Your task to perform on an android device: Open display settings Image 0: 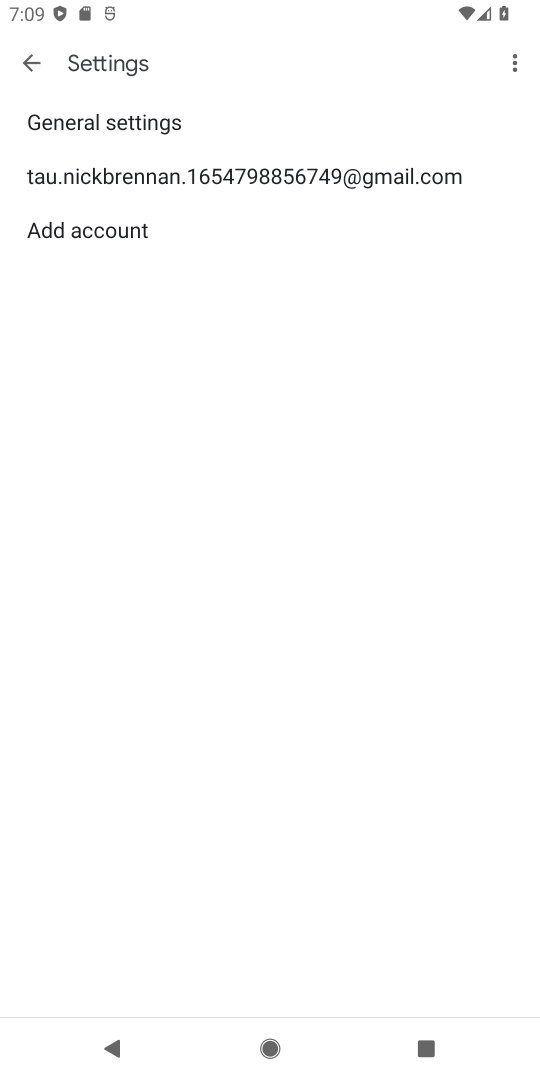
Step 0: press home button
Your task to perform on an android device: Open display settings Image 1: 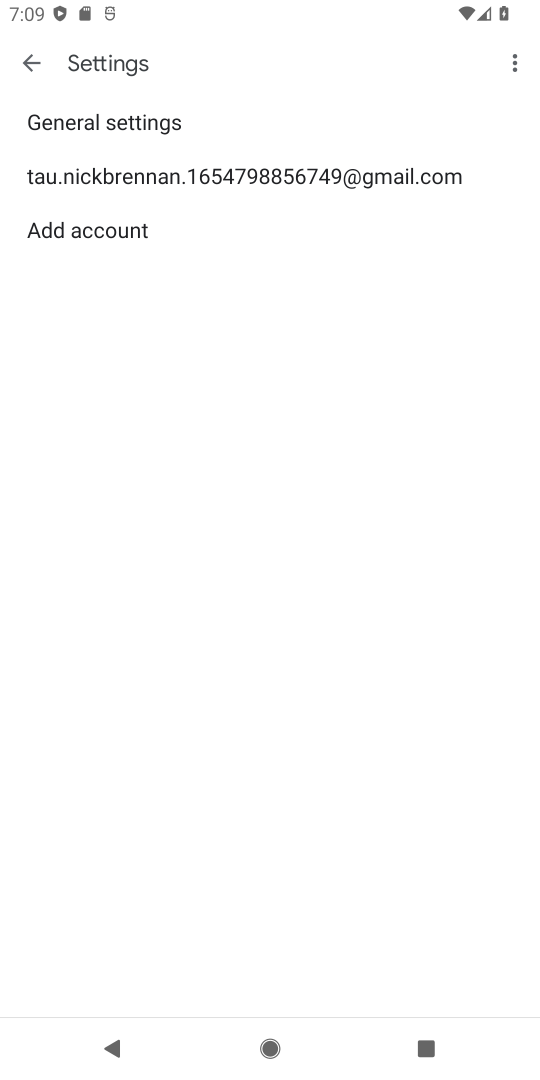
Step 1: press home button
Your task to perform on an android device: Open display settings Image 2: 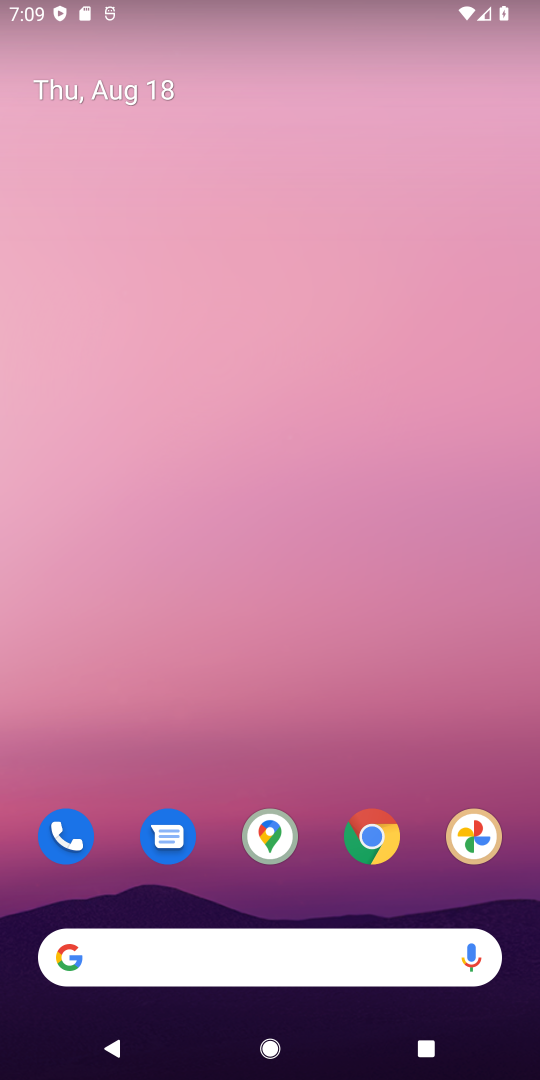
Step 2: drag from (291, 703) to (216, 0)
Your task to perform on an android device: Open display settings Image 3: 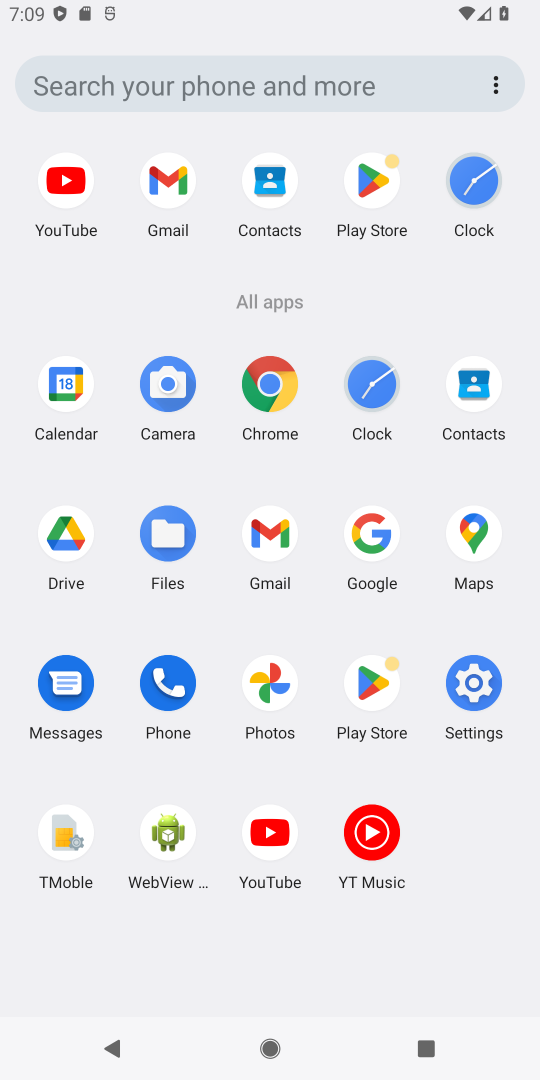
Step 3: click (460, 683)
Your task to perform on an android device: Open display settings Image 4: 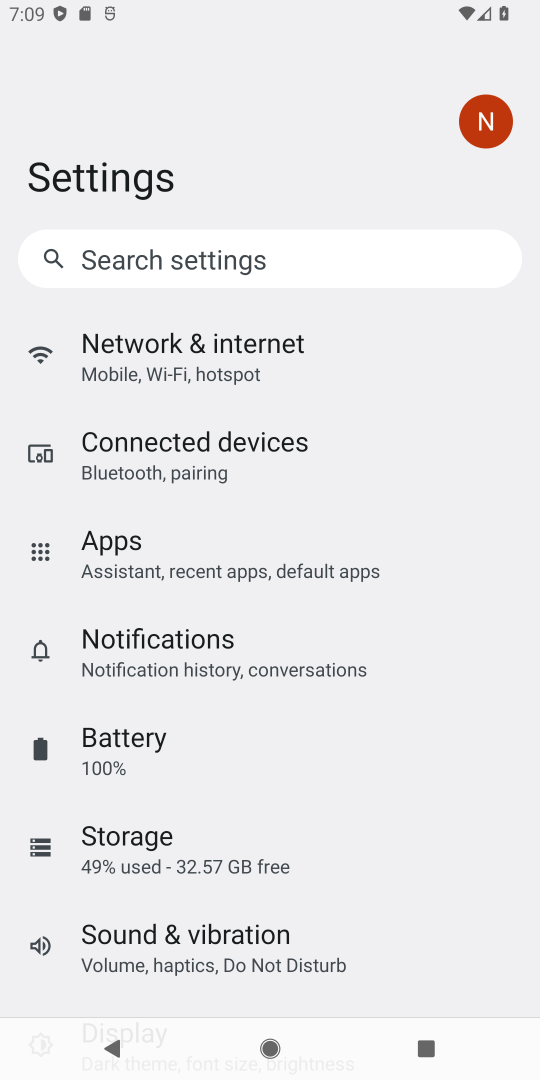
Step 4: drag from (274, 783) to (271, 296)
Your task to perform on an android device: Open display settings Image 5: 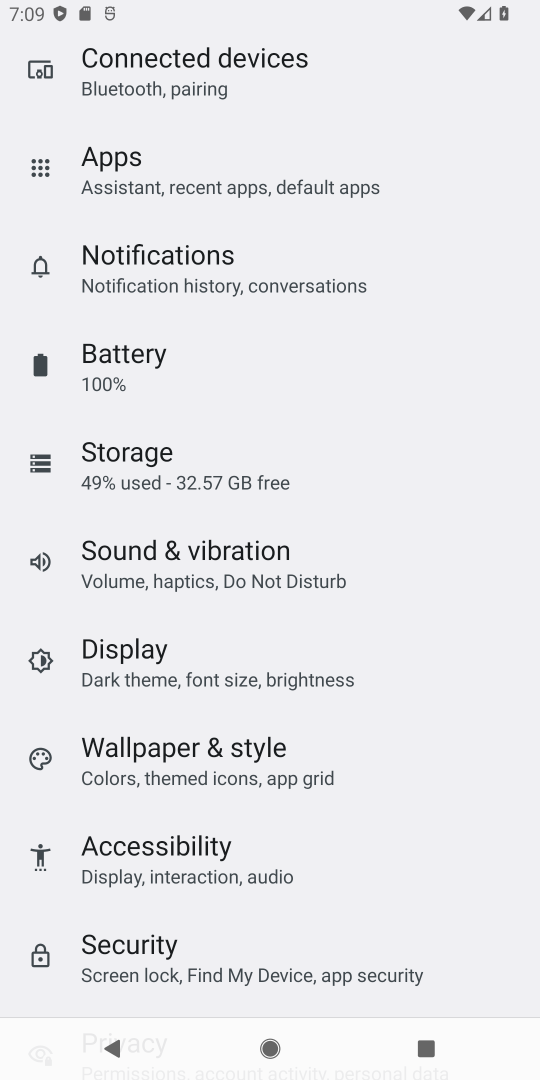
Step 5: click (161, 654)
Your task to perform on an android device: Open display settings Image 6: 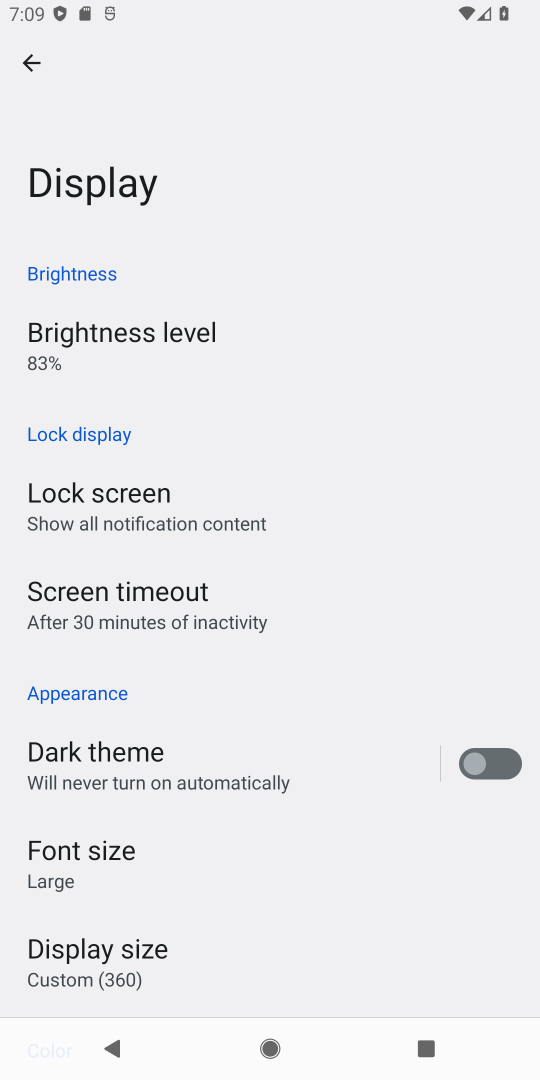
Step 6: task complete